Your task to perform on an android device: turn notification dots off Image 0: 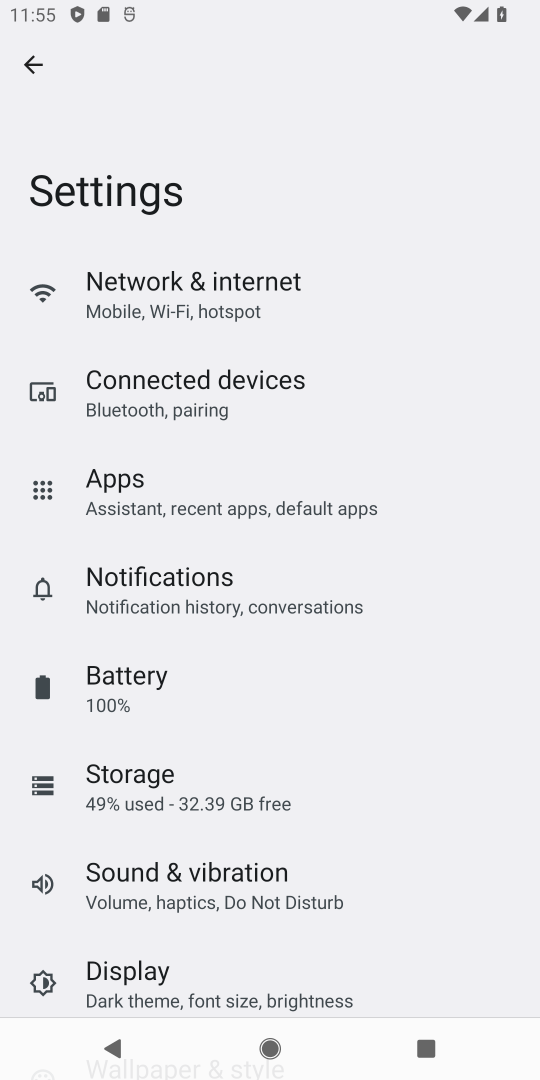
Step 0: click (333, 598)
Your task to perform on an android device: turn notification dots off Image 1: 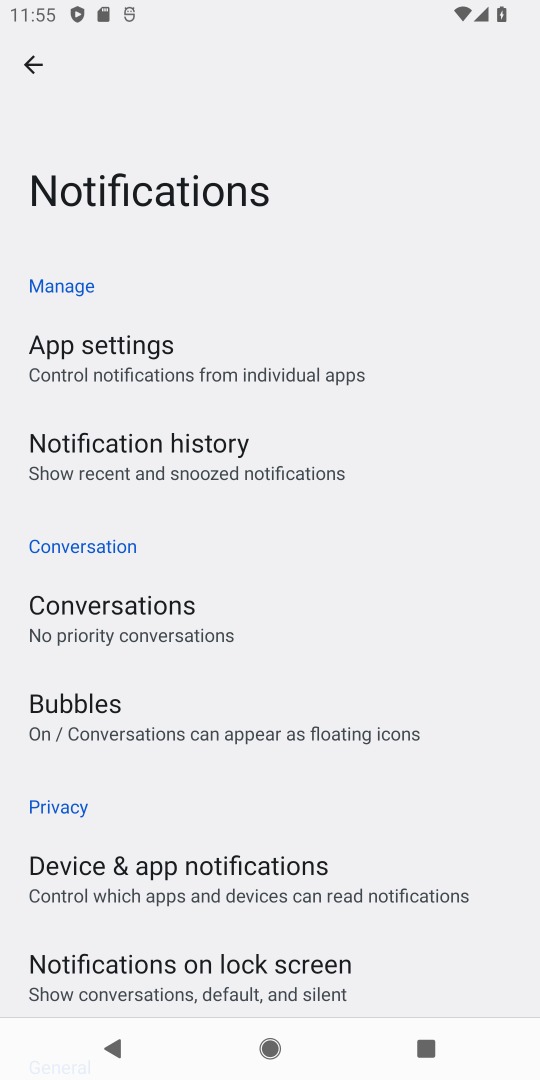
Step 1: drag from (244, 987) to (109, 105)
Your task to perform on an android device: turn notification dots off Image 2: 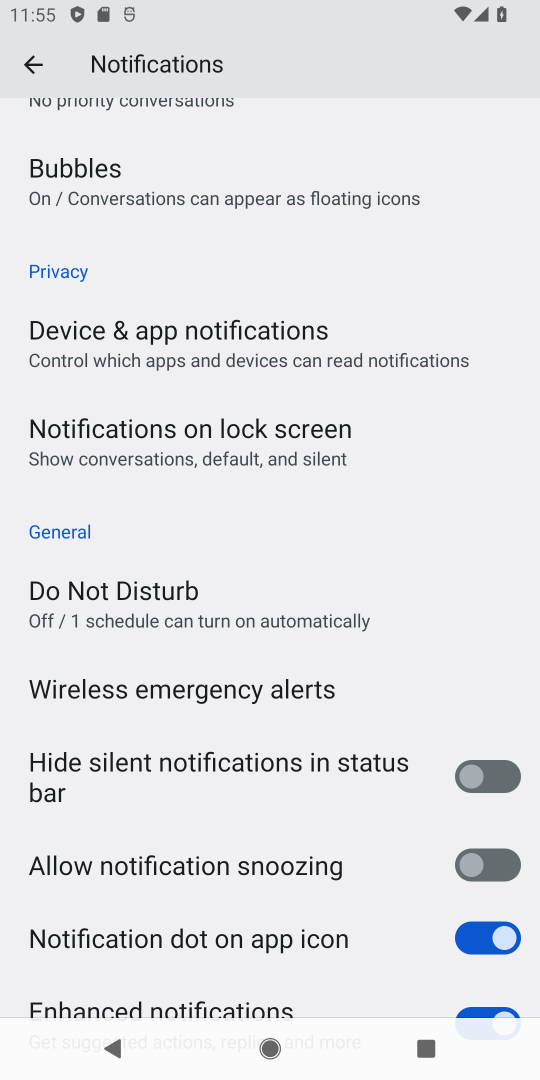
Step 2: click (487, 930)
Your task to perform on an android device: turn notification dots off Image 3: 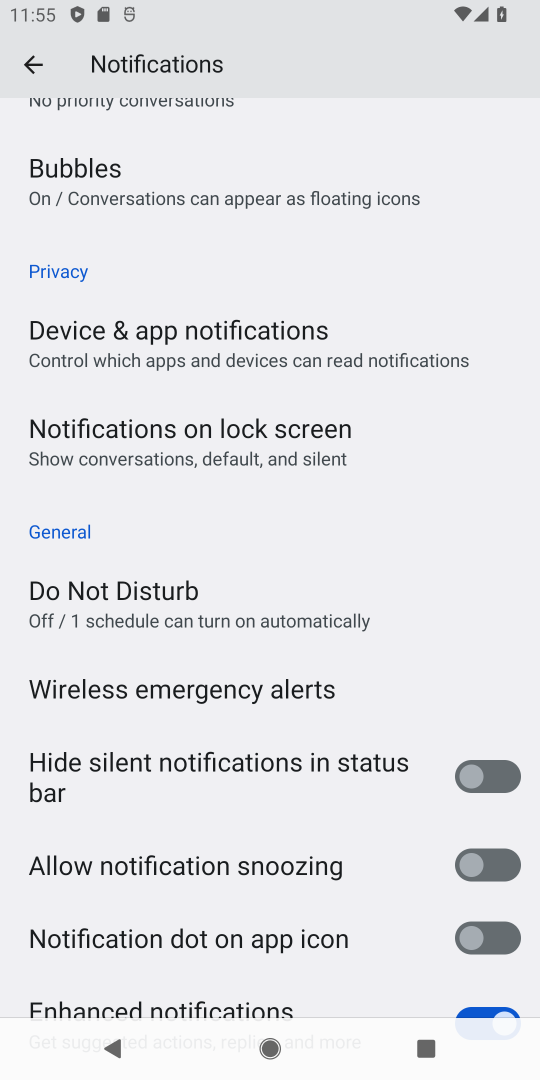
Step 3: task complete